Your task to perform on an android device: Add razer deathadder to the cart on target, then select checkout. Image 0: 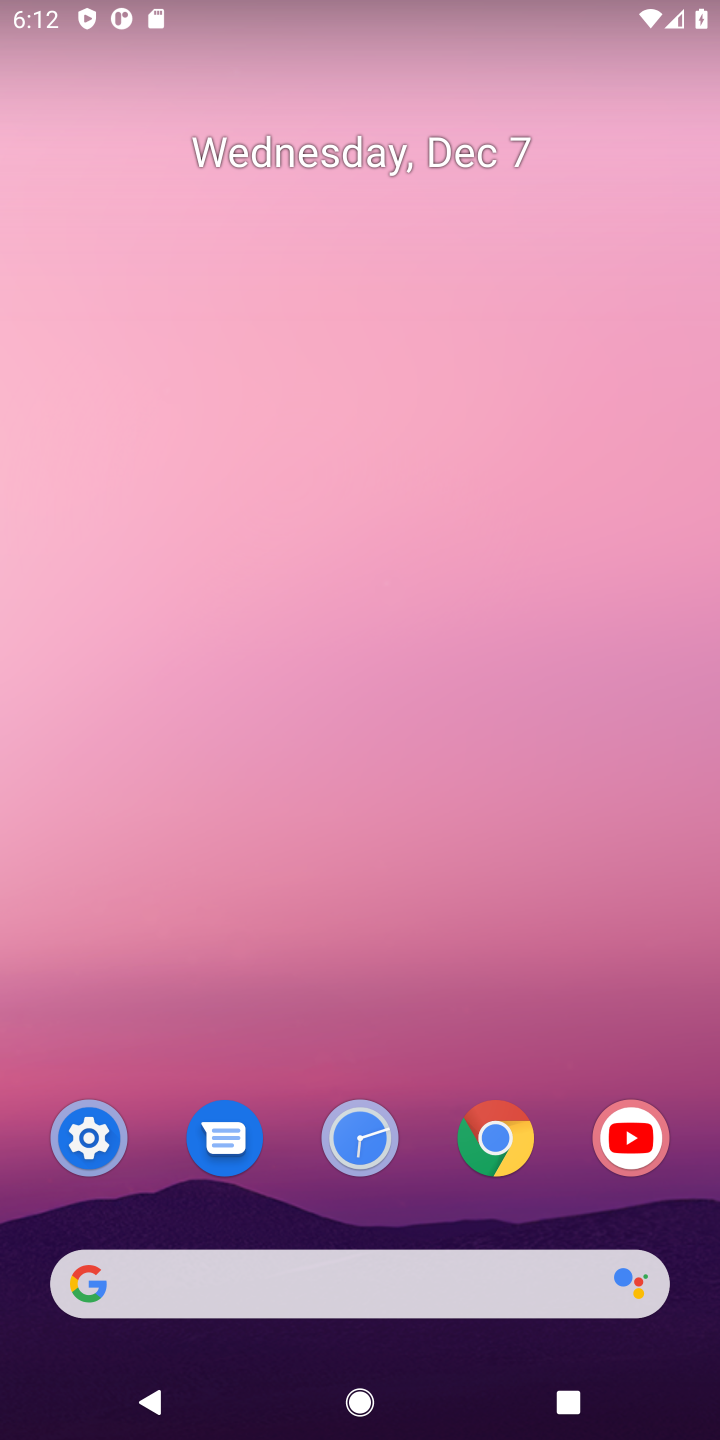
Step 0: press home button
Your task to perform on an android device: Add razer deathadder to the cart on target, then select checkout. Image 1: 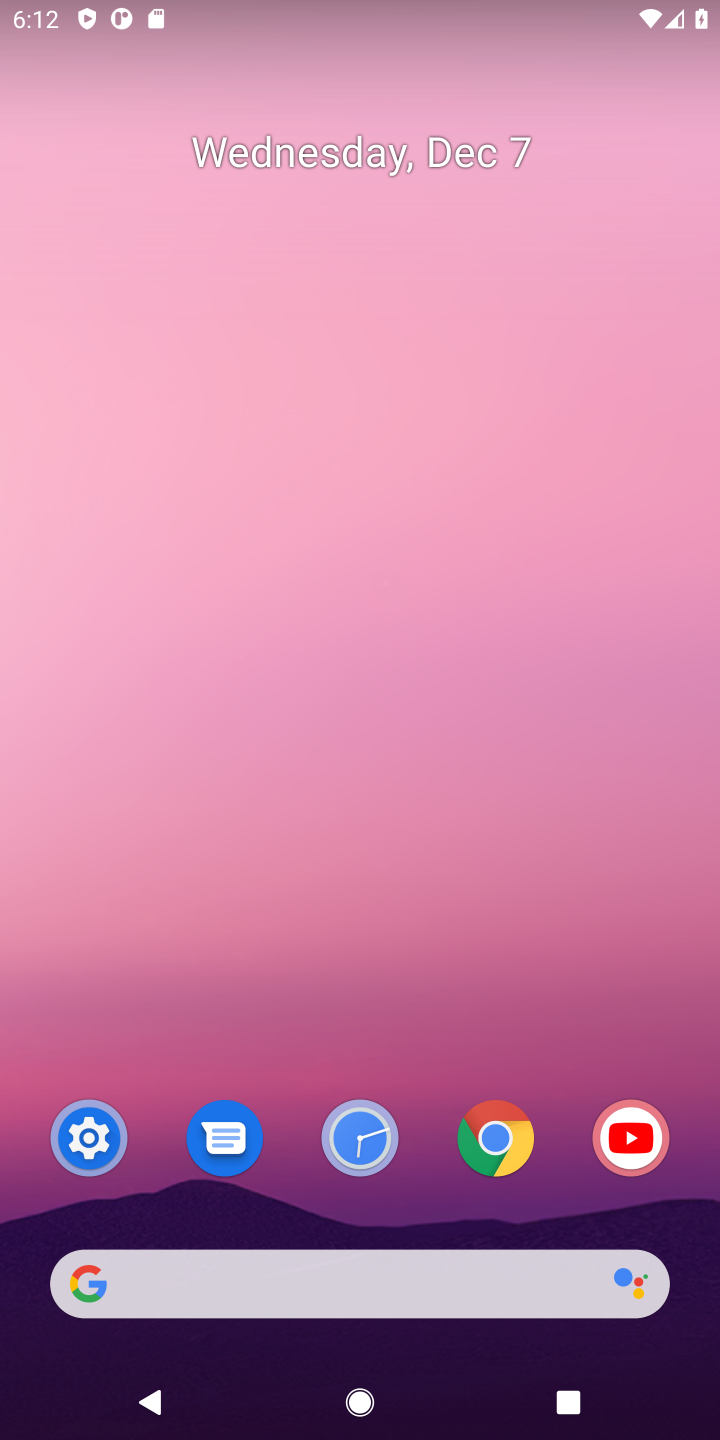
Step 1: click (127, 1283)
Your task to perform on an android device: Add razer deathadder to the cart on target, then select checkout. Image 2: 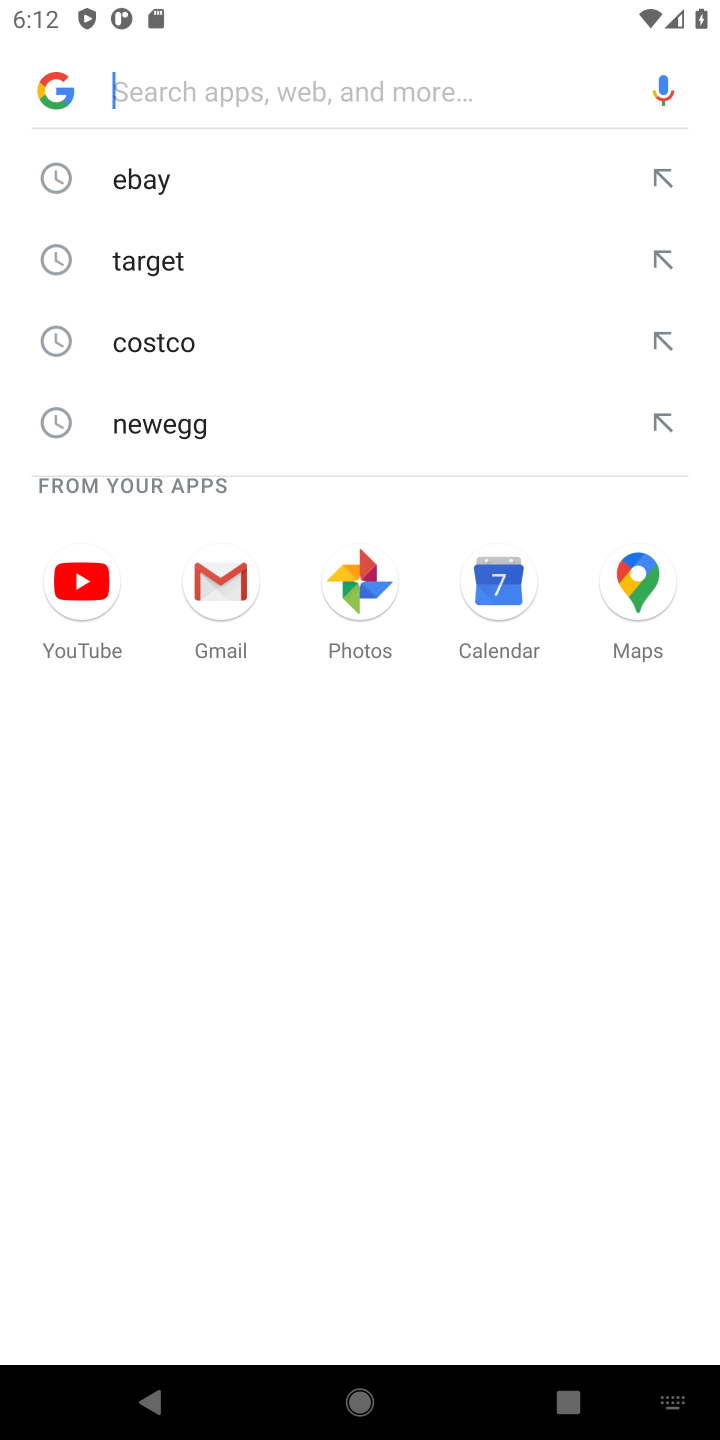
Step 2: press enter
Your task to perform on an android device: Add razer deathadder to the cart on target, then select checkout. Image 3: 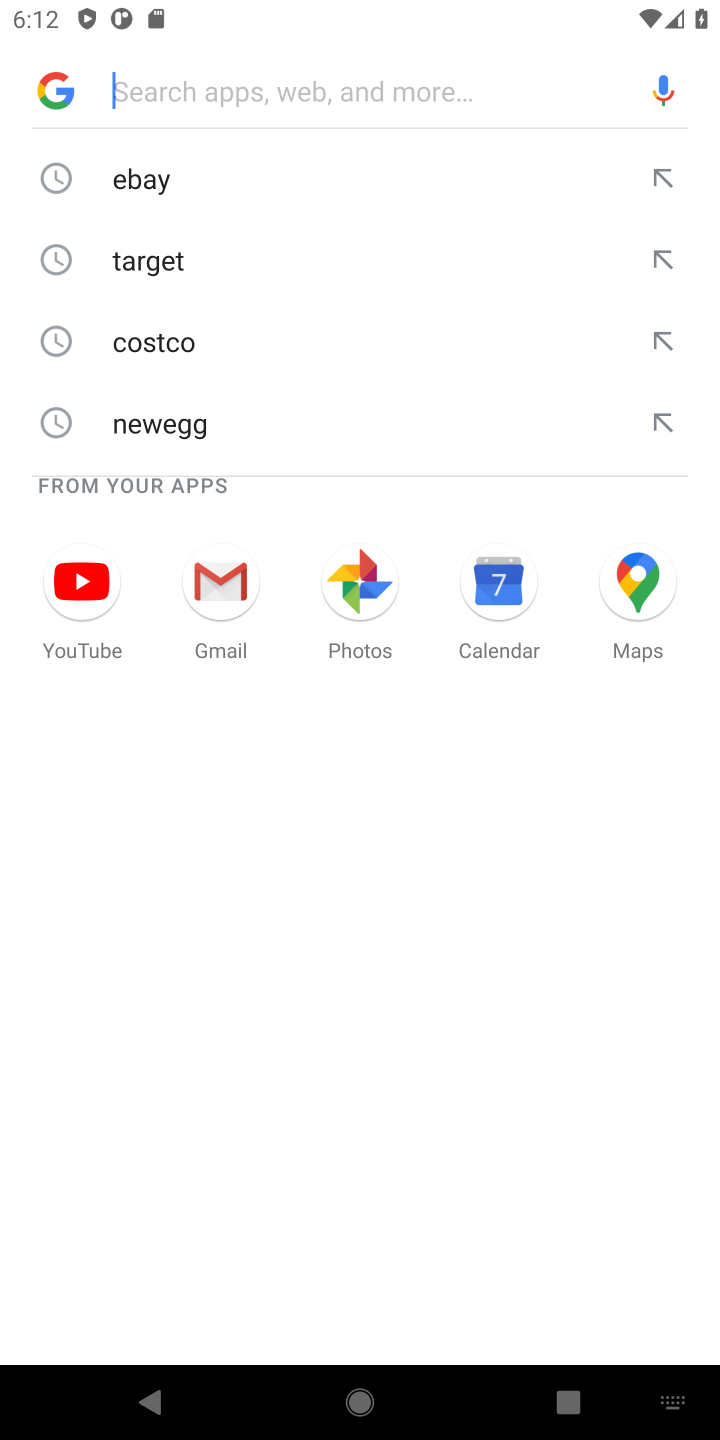
Step 3: type "target"
Your task to perform on an android device: Add razer deathadder to the cart on target, then select checkout. Image 4: 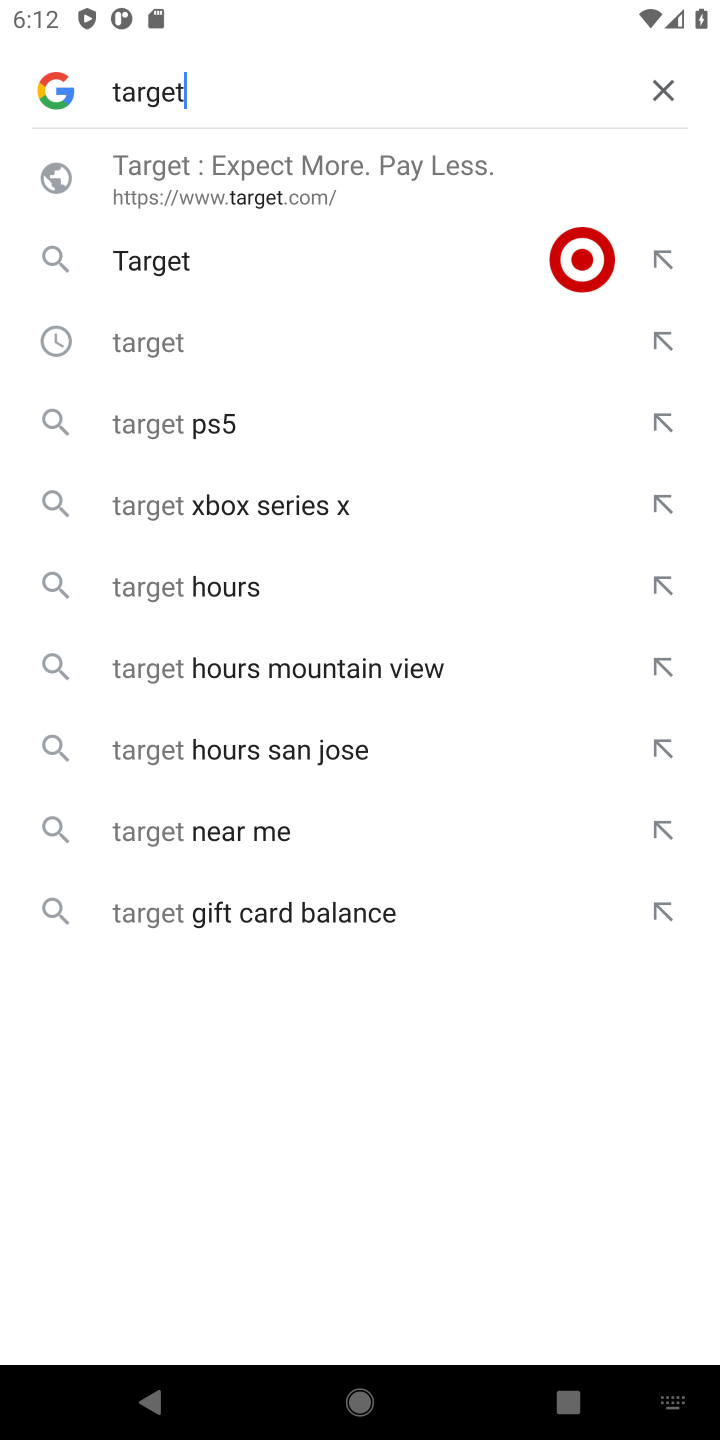
Step 4: press enter
Your task to perform on an android device: Add razer deathadder to the cart on target, then select checkout. Image 5: 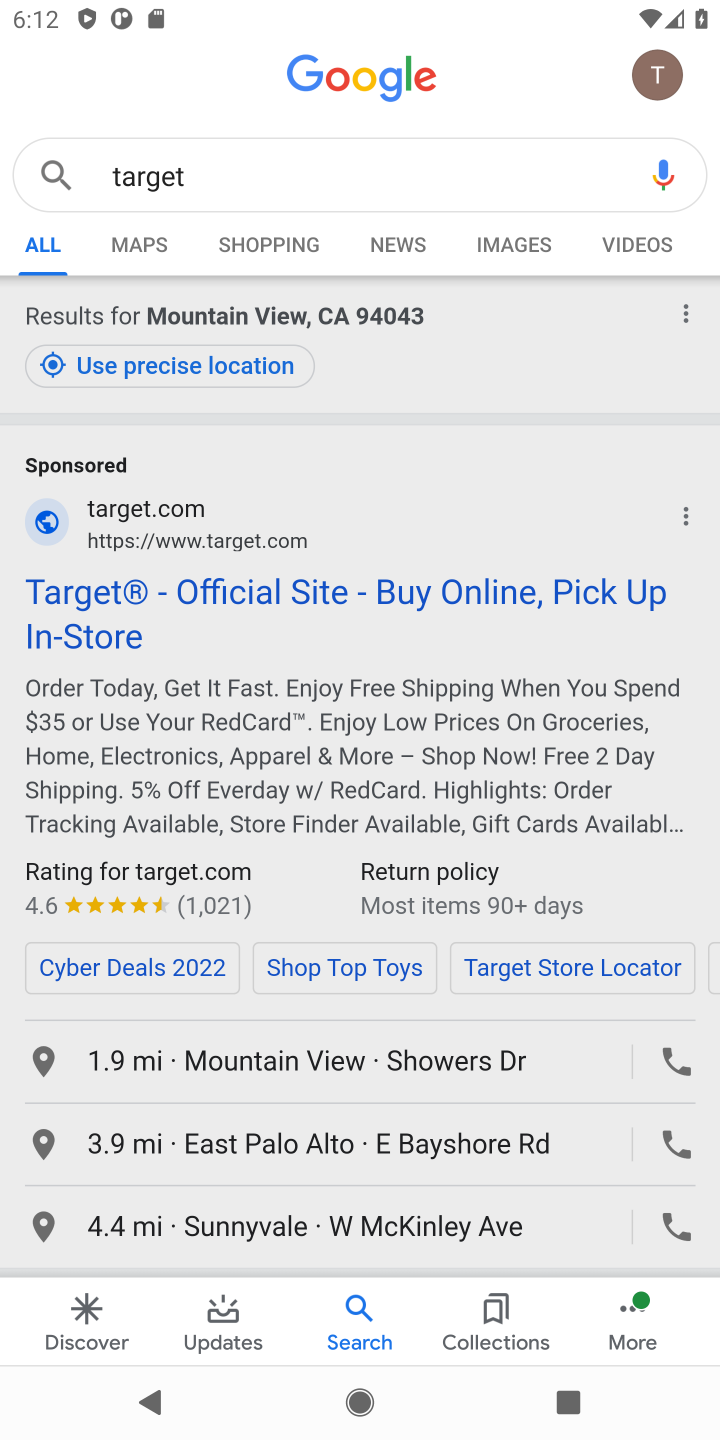
Step 5: click (252, 577)
Your task to perform on an android device: Add razer deathadder to the cart on target, then select checkout. Image 6: 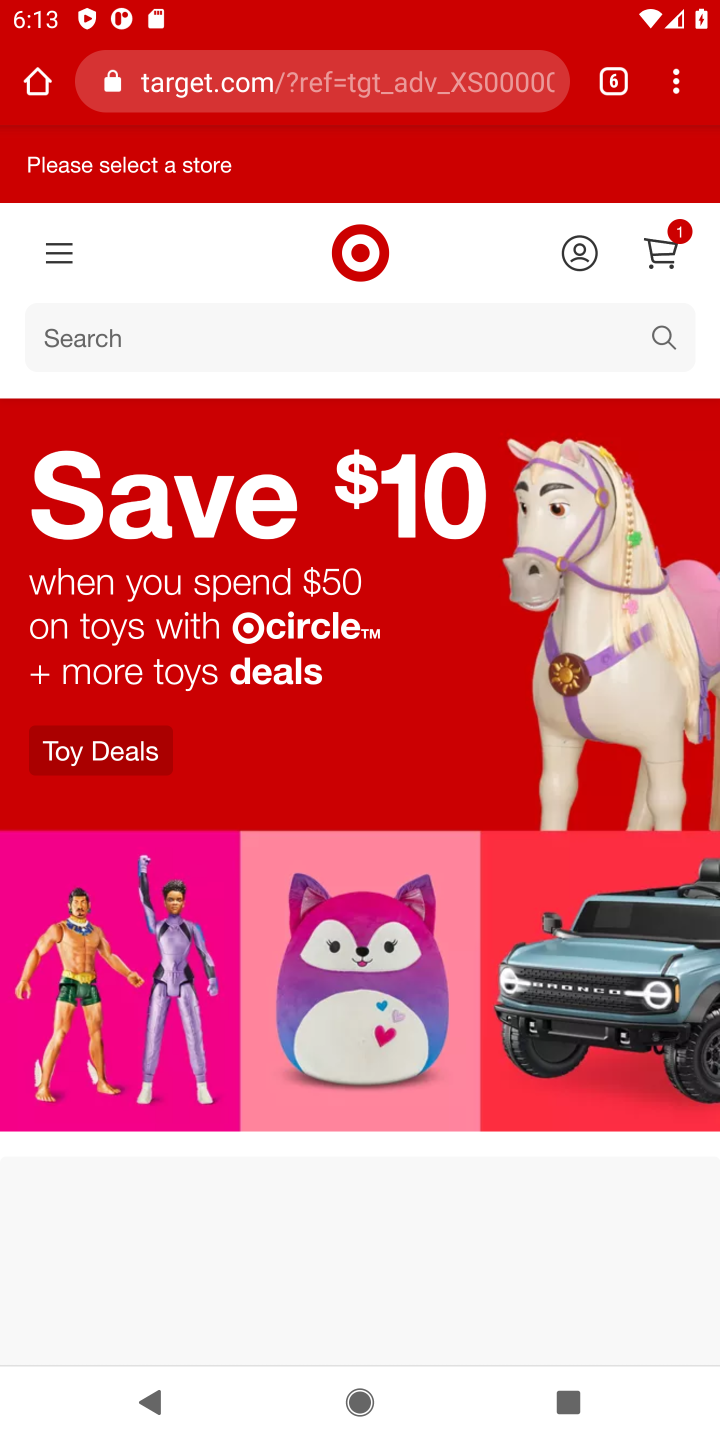
Step 6: click (79, 348)
Your task to perform on an android device: Add razer deathadder to the cart on target, then select checkout. Image 7: 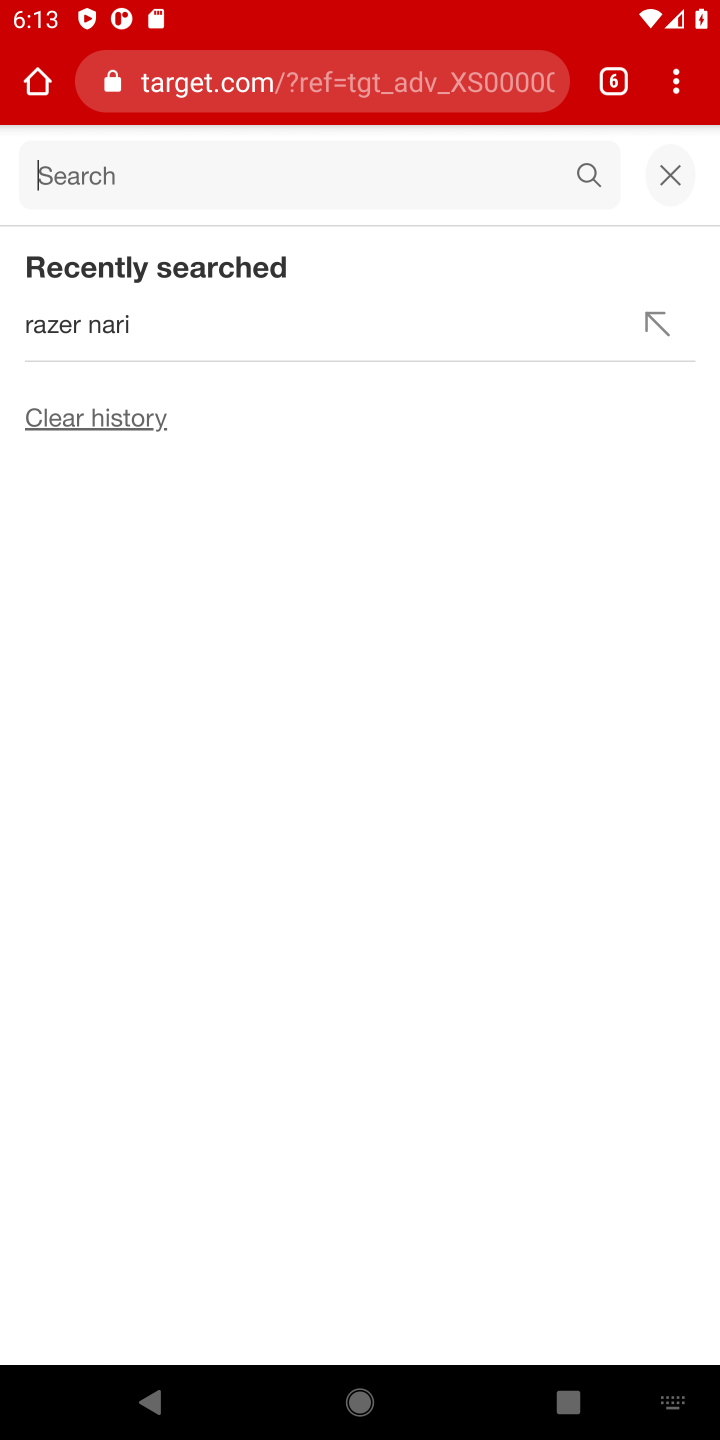
Step 7: type "razer deathadder "
Your task to perform on an android device: Add razer deathadder to the cart on target, then select checkout. Image 8: 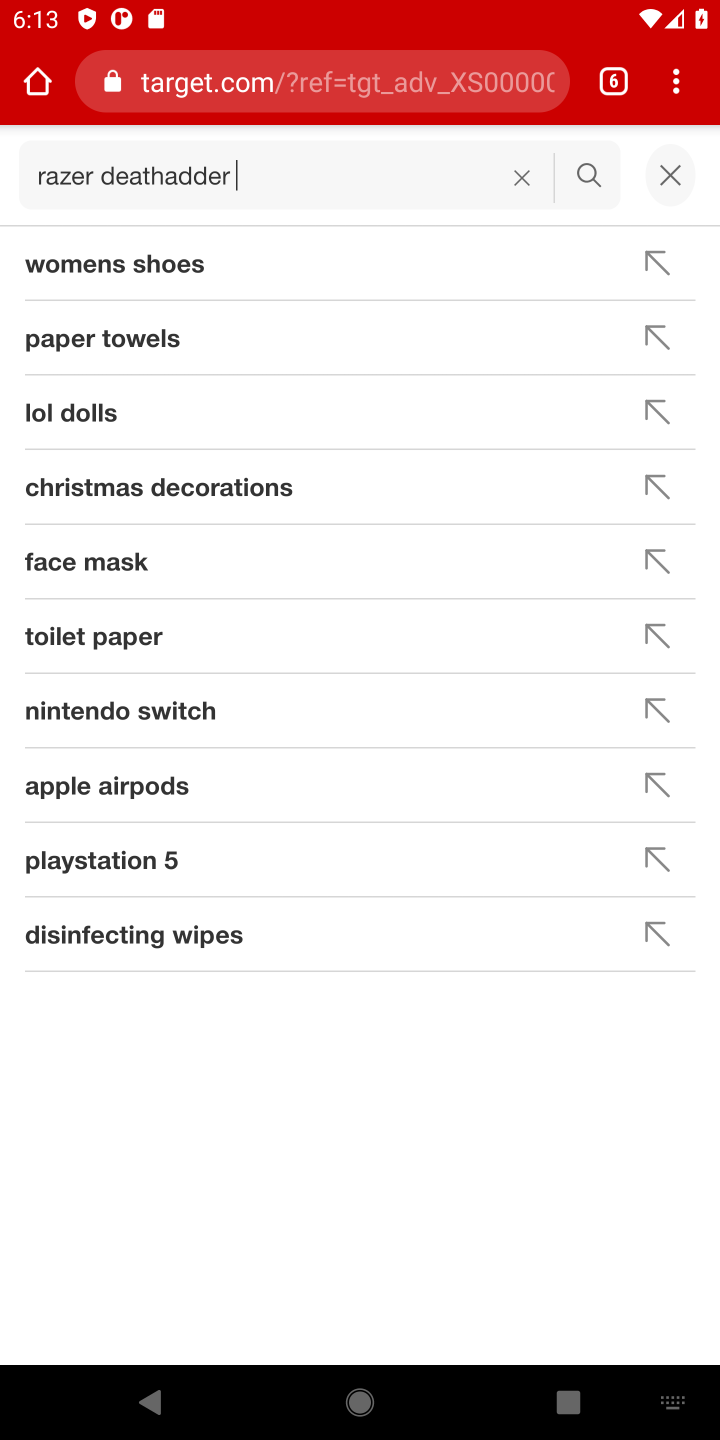
Step 8: press enter
Your task to perform on an android device: Add razer deathadder to the cart on target, then select checkout. Image 9: 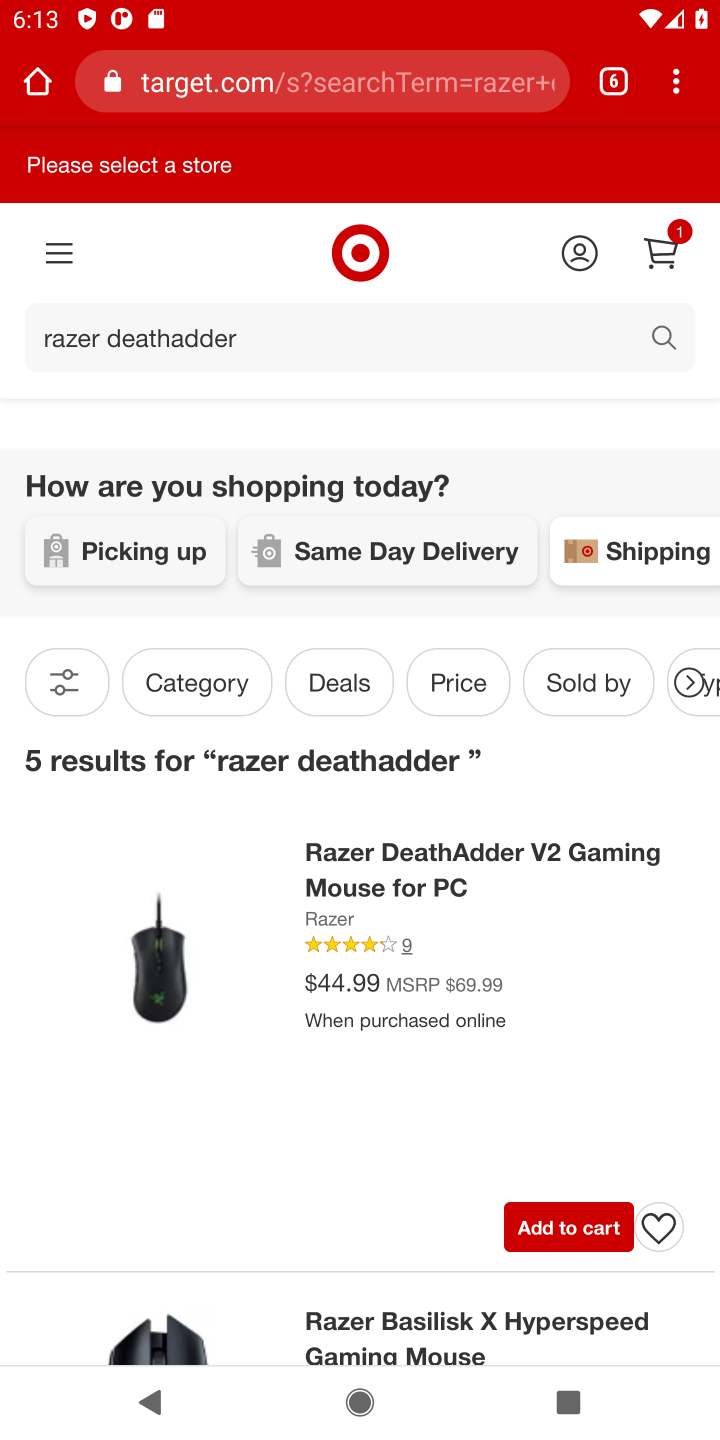
Step 9: drag from (546, 1037) to (536, 776)
Your task to perform on an android device: Add razer deathadder to the cart on target, then select checkout. Image 10: 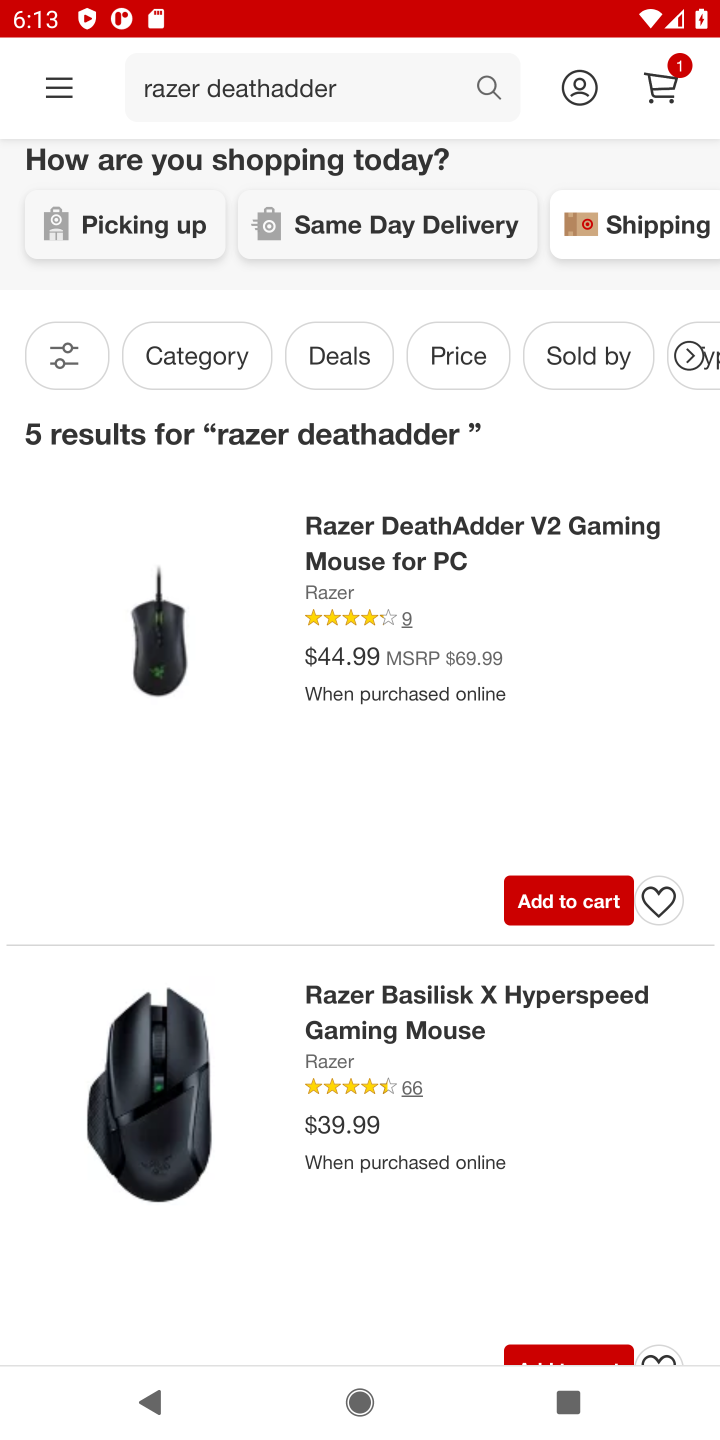
Step 10: click (571, 902)
Your task to perform on an android device: Add razer deathadder to the cart on target, then select checkout. Image 11: 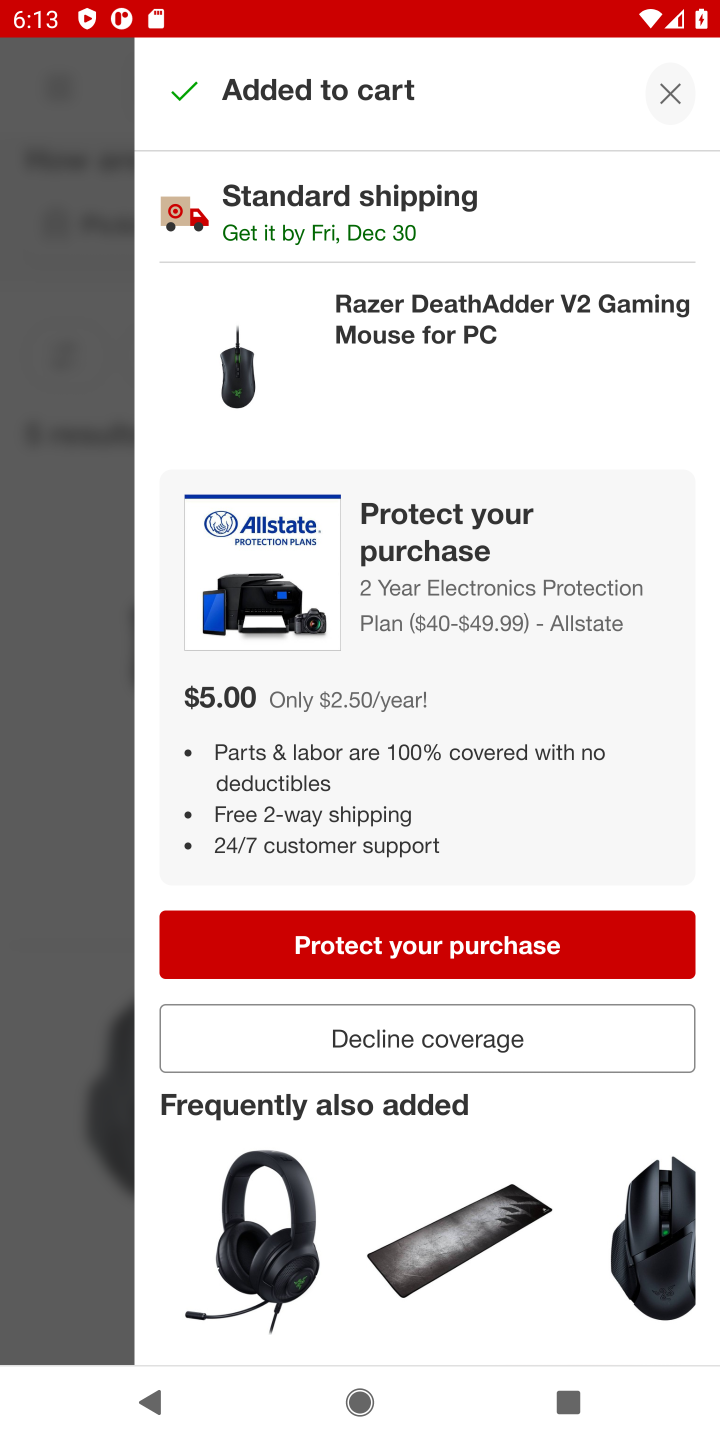
Step 11: click (490, 1042)
Your task to perform on an android device: Add razer deathadder to the cart on target, then select checkout. Image 12: 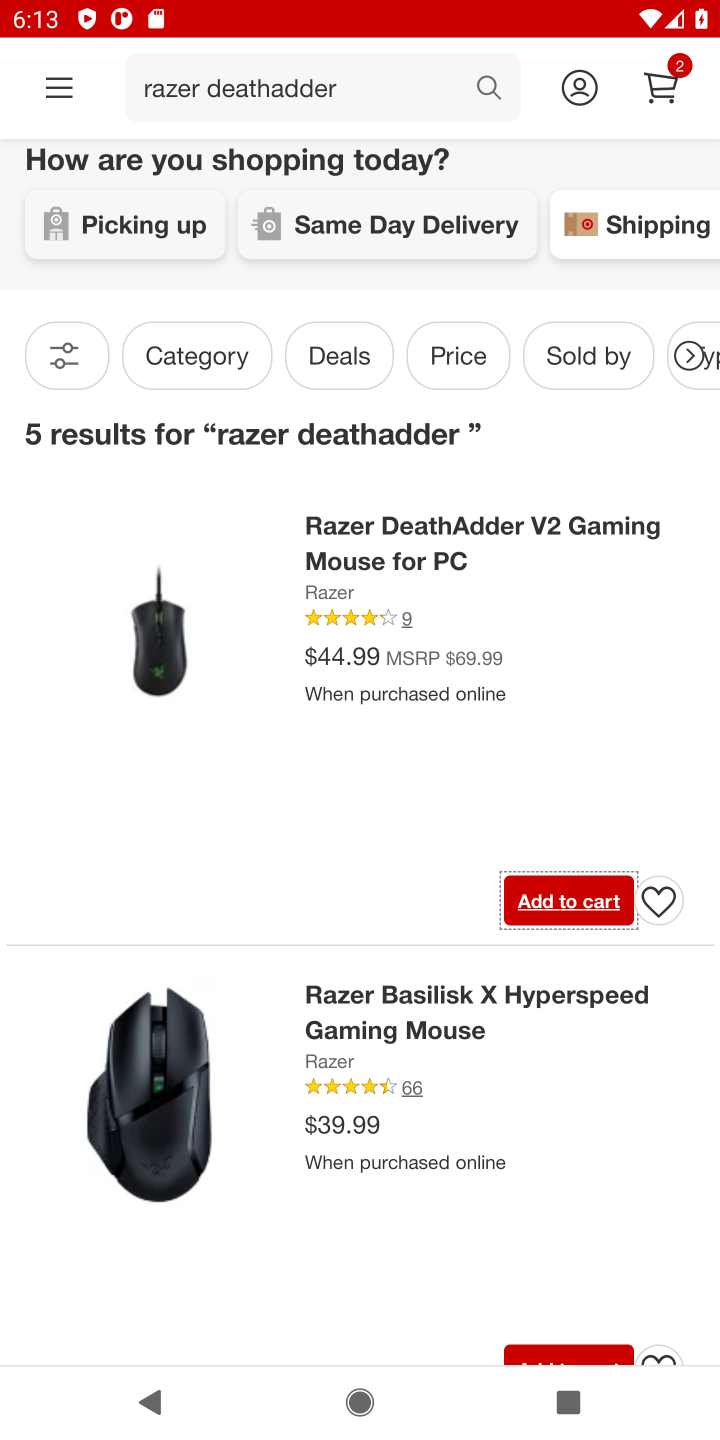
Step 12: click (661, 85)
Your task to perform on an android device: Add razer deathadder to the cart on target, then select checkout. Image 13: 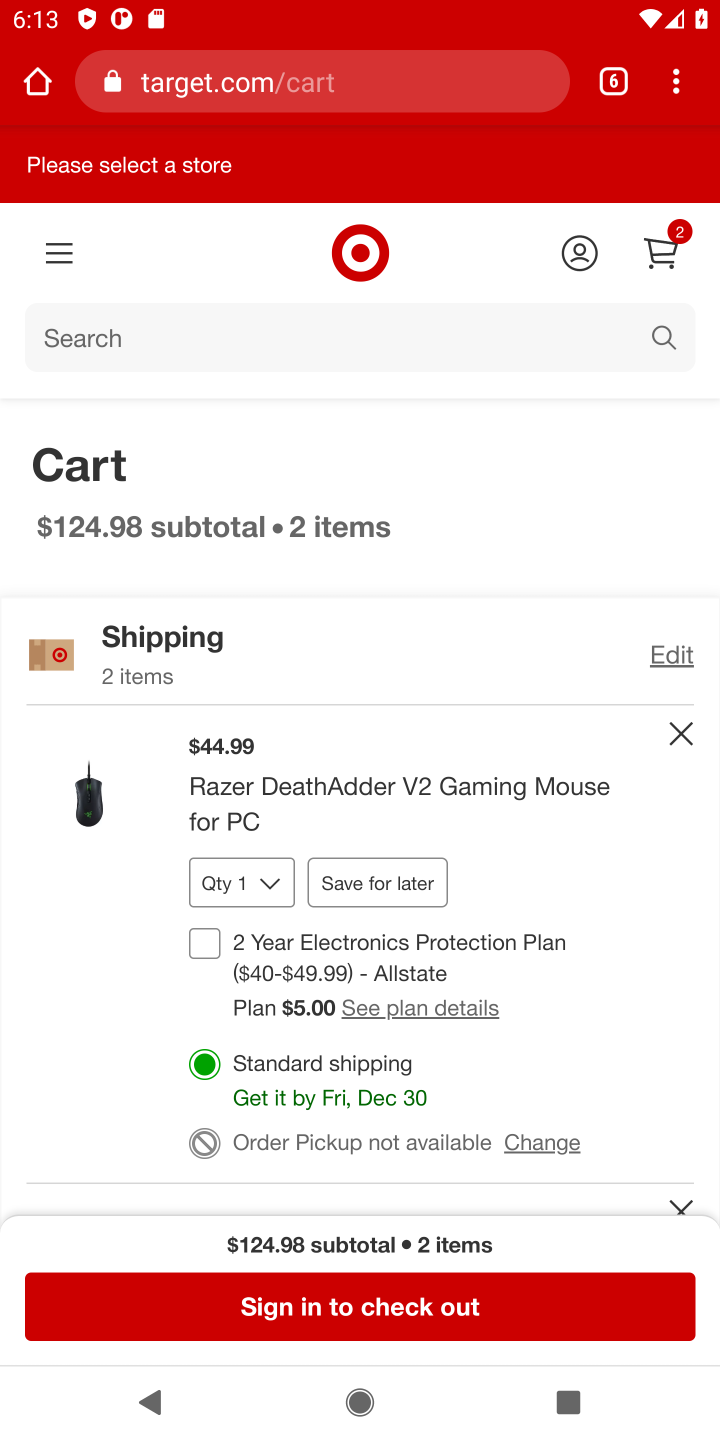
Step 13: click (471, 1324)
Your task to perform on an android device: Add razer deathadder to the cart on target, then select checkout. Image 14: 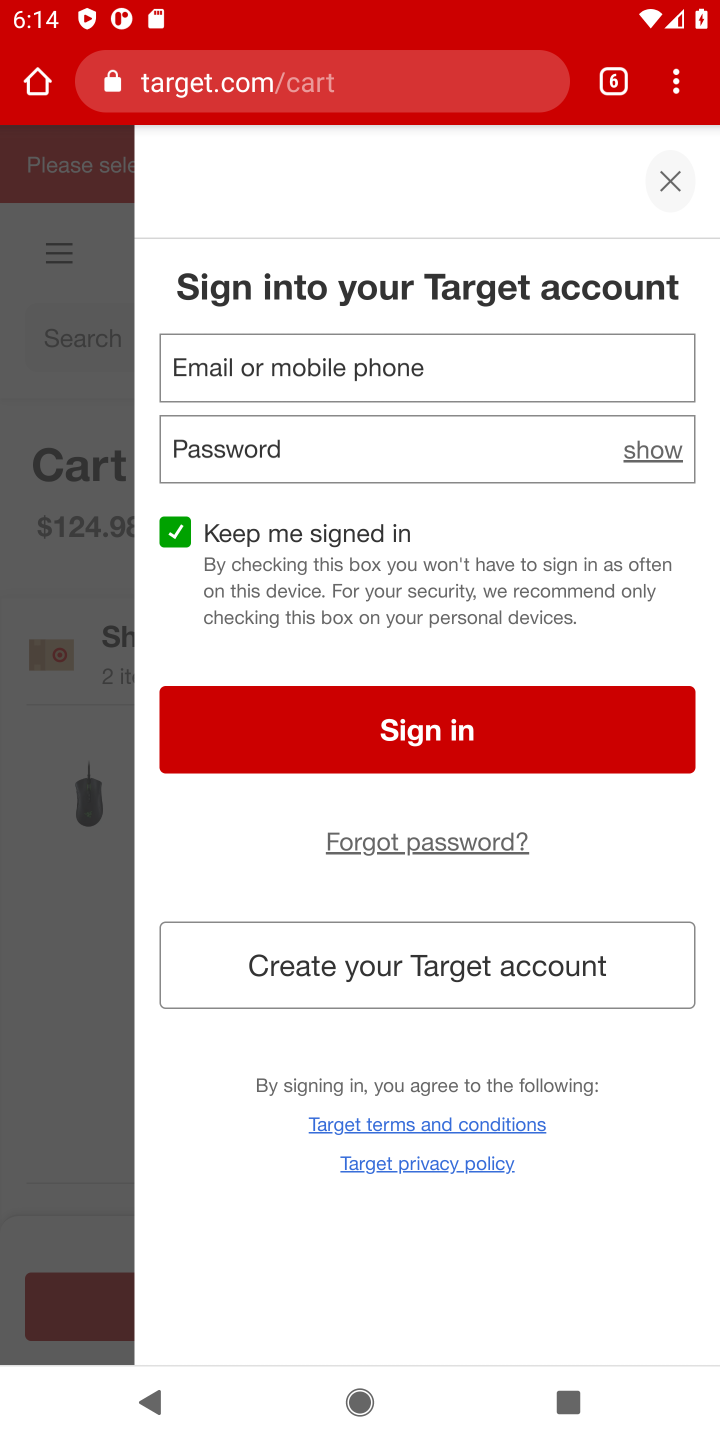
Step 14: task complete